Your task to perform on an android device: add a contact in the contacts app Image 0: 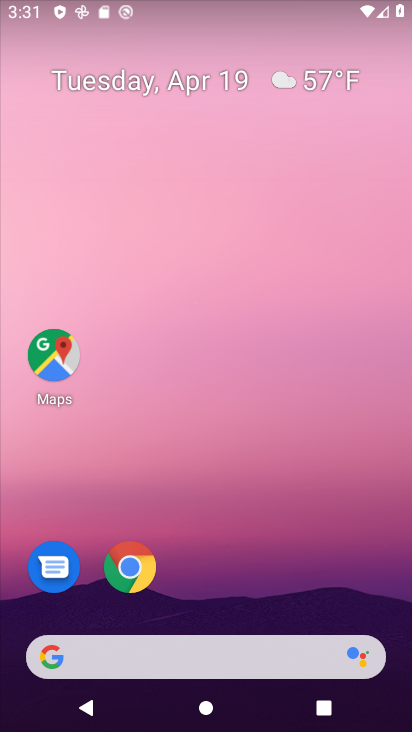
Step 0: drag from (345, 553) to (354, 192)
Your task to perform on an android device: add a contact in the contacts app Image 1: 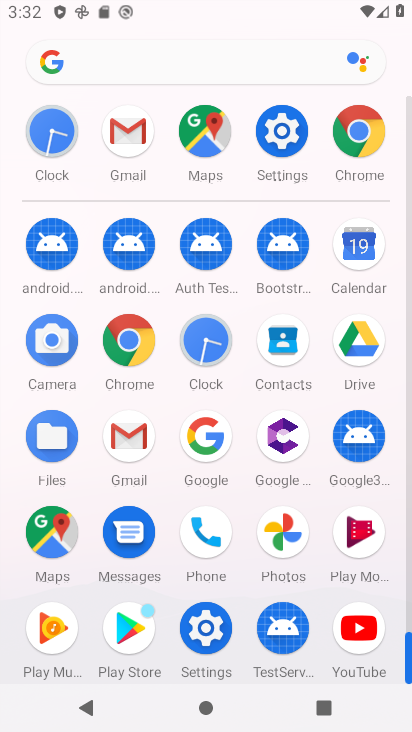
Step 1: click (288, 357)
Your task to perform on an android device: add a contact in the contacts app Image 2: 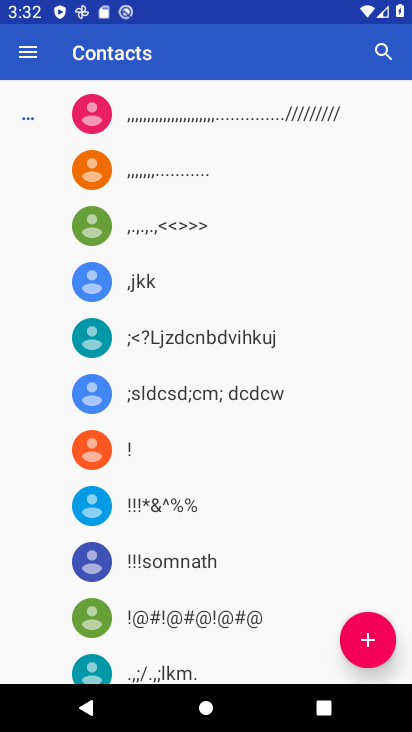
Step 2: click (364, 637)
Your task to perform on an android device: add a contact in the contacts app Image 3: 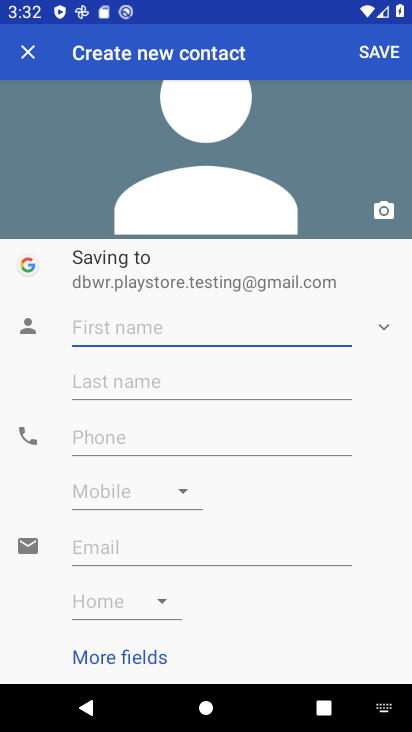
Step 3: type "lol"
Your task to perform on an android device: add a contact in the contacts app Image 4: 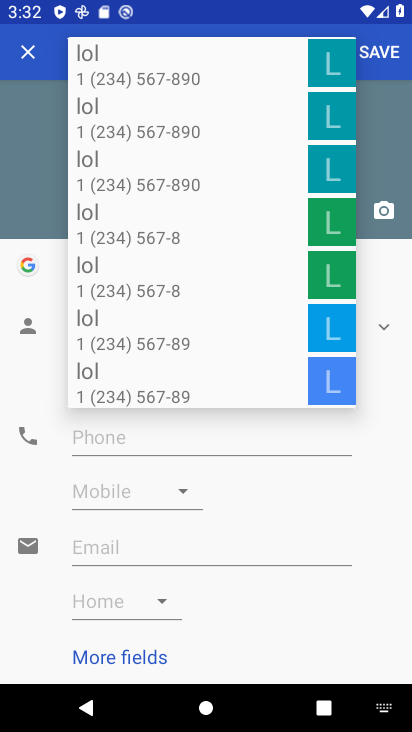
Step 4: click (281, 443)
Your task to perform on an android device: add a contact in the contacts app Image 5: 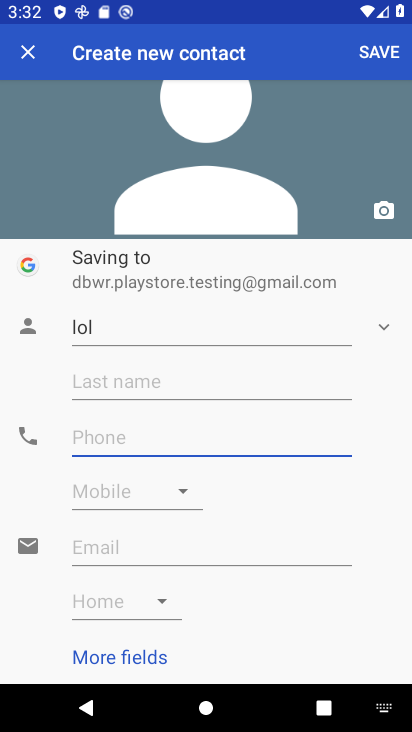
Step 5: type "1234567890"
Your task to perform on an android device: add a contact in the contacts app Image 6: 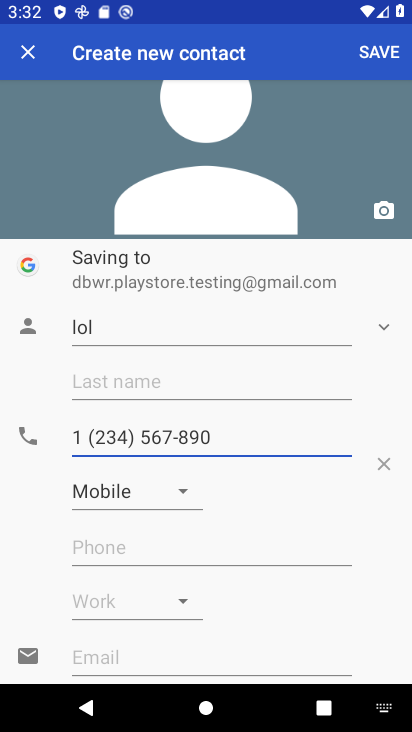
Step 6: click (378, 56)
Your task to perform on an android device: add a contact in the contacts app Image 7: 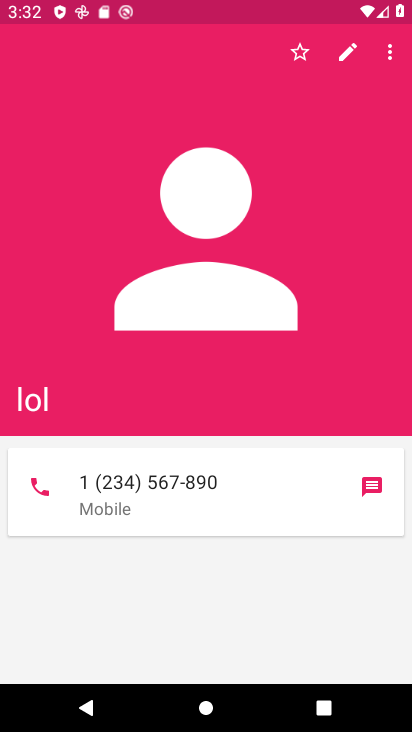
Step 7: task complete